Your task to perform on an android device: Go to sound settings Image 0: 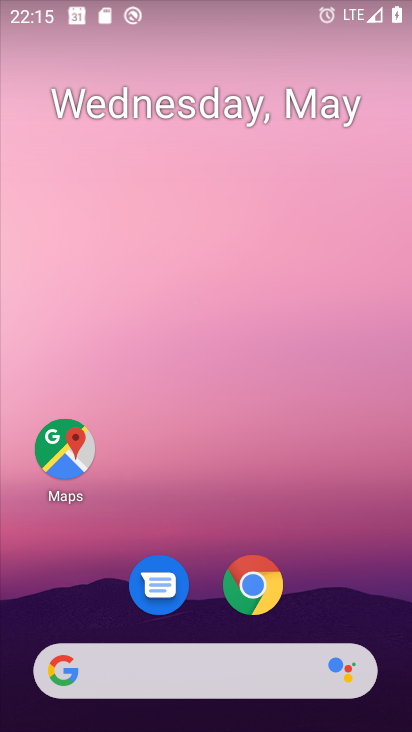
Step 0: drag from (254, 427) to (264, 56)
Your task to perform on an android device: Go to sound settings Image 1: 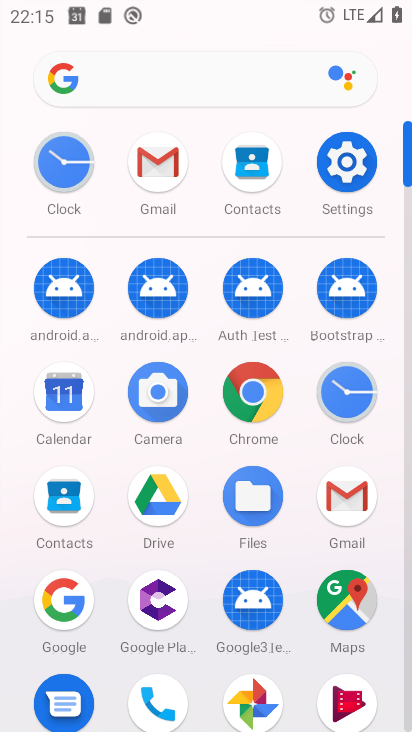
Step 1: click (334, 149)
Your task to perform on an android device: Go to sound settings Image 2: 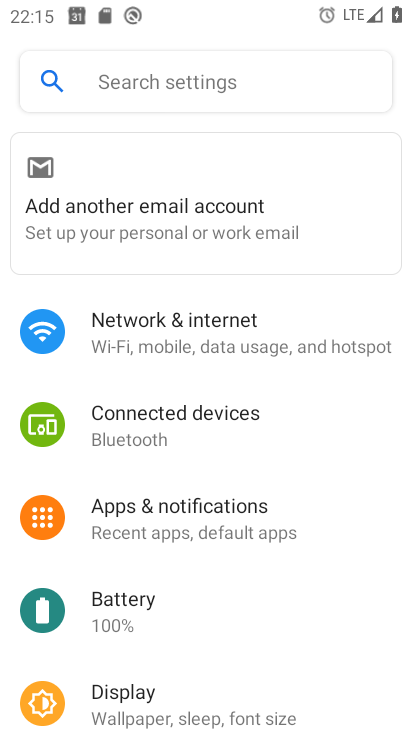
Step 2: drag from (244, 606) to (216, 150)
Your task to perform on an android device: Go to sound settings Image 3: 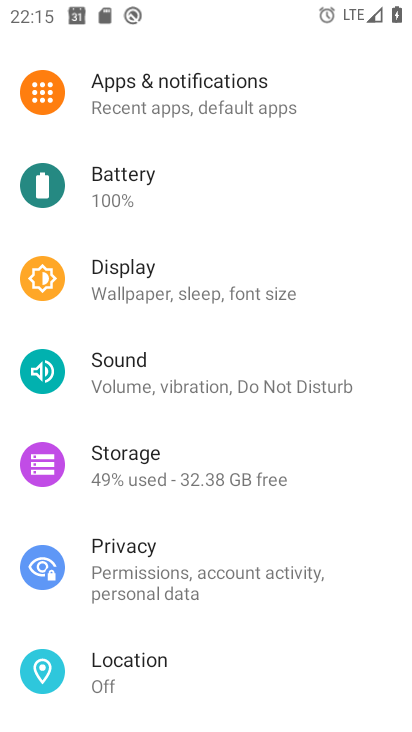
Step 3: click (203, 369)
Your task to perform on an android device: Go to sound settings Image 4: 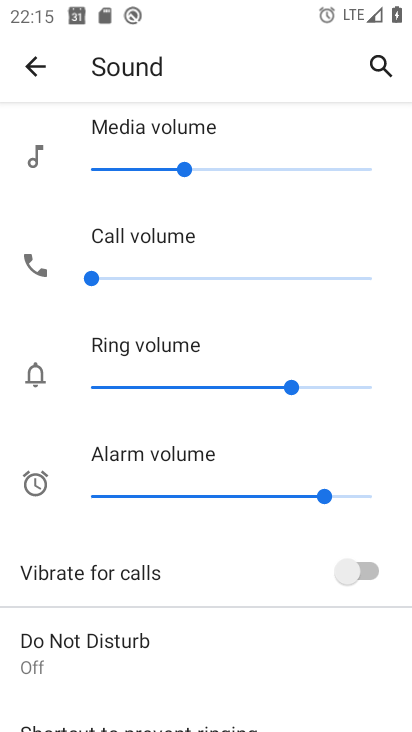
Step 4: task complete